Your task to perform on an android device: Open Wikipedia Image 0: 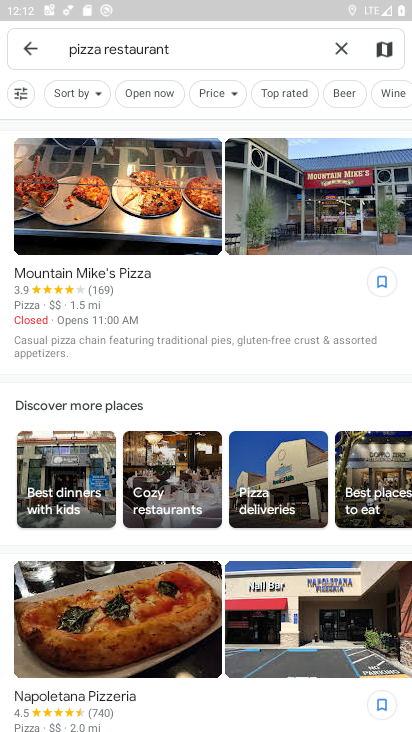
Step 0: press home button
Your task to perform on an android device: Open Wikipedia Image 1: 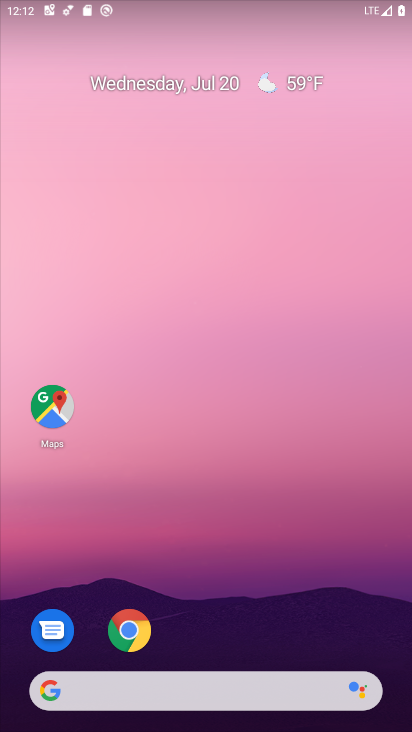
Step 1: click (123, 627)
Your task to perform on an android device: Open Wikipedia Image 2: 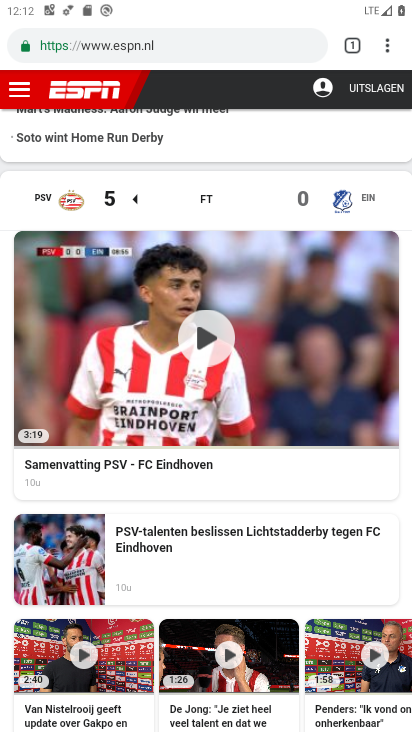
Step 2: click (185, 37)
Your task to perform on an android device: Open Wikipedia Image 3: 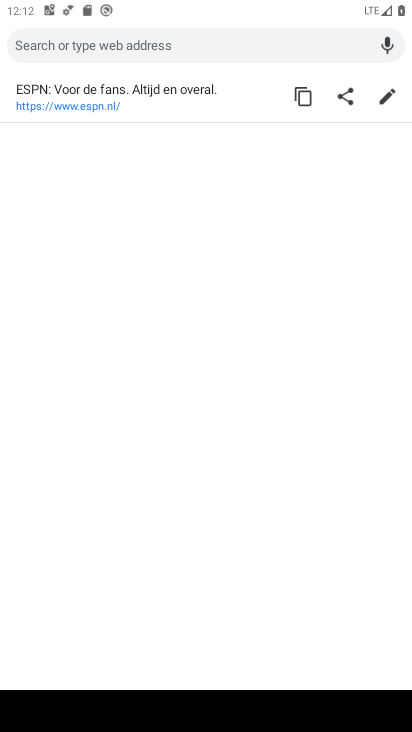
Step 3: type "wikipedia"
Your task to perform on an android device: Open Wikipedia Image 4: 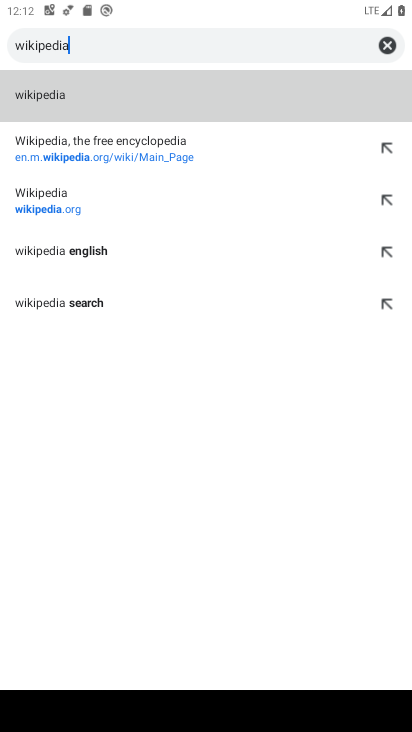
Step 4: click (38, 95)
Your task to perform on an android device: Open Wikipedia Image 5: 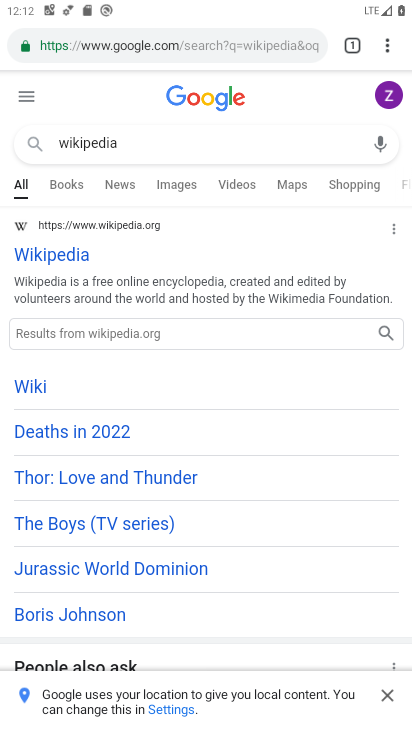
Step 5: click (57, 249)
Your task to perform on an android device: Open Wikipedia Image 6: 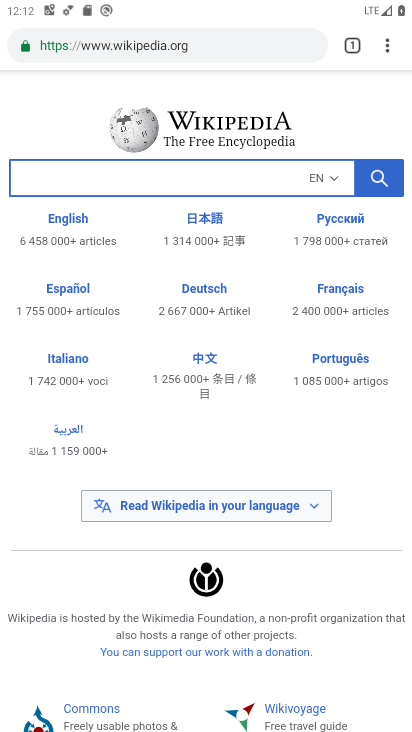
Step 6: task complete